Your task to perform on an android device: turn off data saver in the chrome app Image 0: 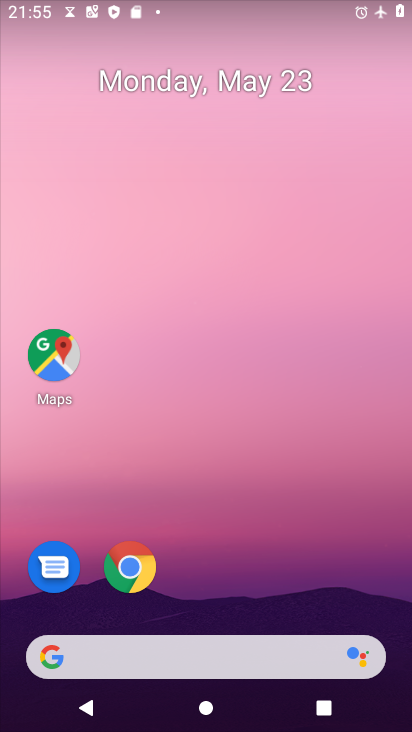
Step 0: drag from (270, 509) to (275, 247)
Your task to perform on an android device: turn off data saver in the chrome app Image 1: 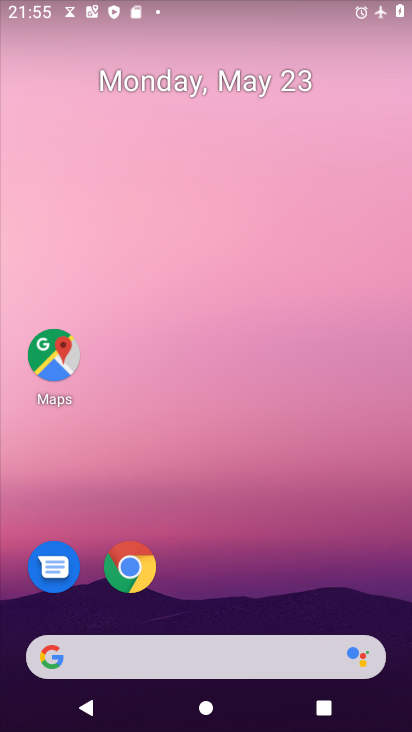
Step 1: drag from (267, 578) to (228, 156)
Your task to perform on an android device: turn off data saver in the chrome app Image 2: 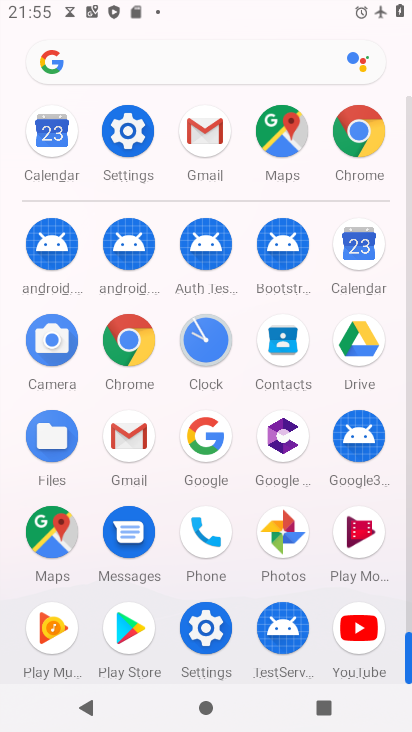
Step 2: click (117, 342)
Your task to perform on an android device: turn off data saver in the chrome app Image 3: 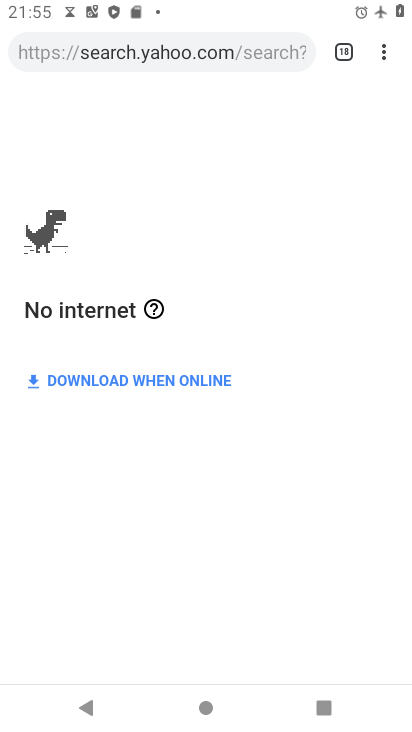
Step 3: click (378, 60)
Your task to perform on an android device: turn off data saver in the chrome app Image 4: 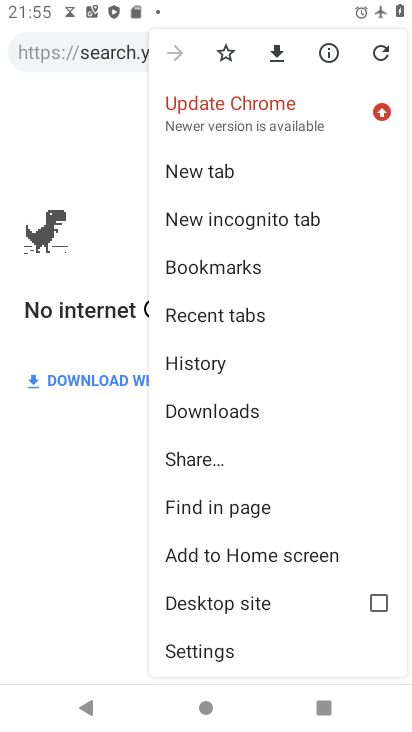
Step 4: click (218, 654)
Your task to perform on an android device: turn off data saver in the chrome app Image 5: 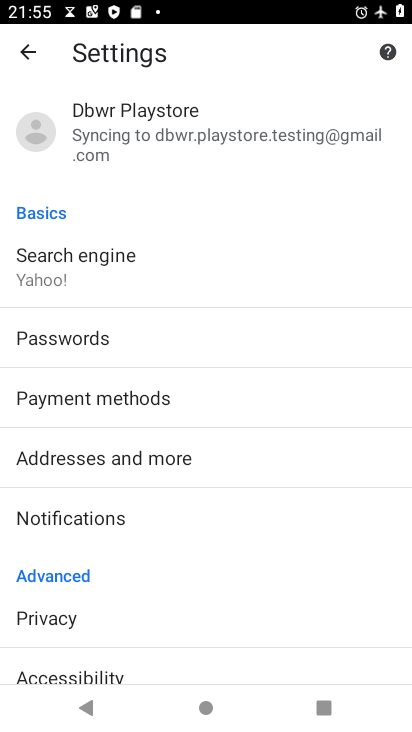
Step 5: drag from (245, 618) to (262, 234)
Your task to perform on an android device: turn off data saver in the chrome app Image 6: 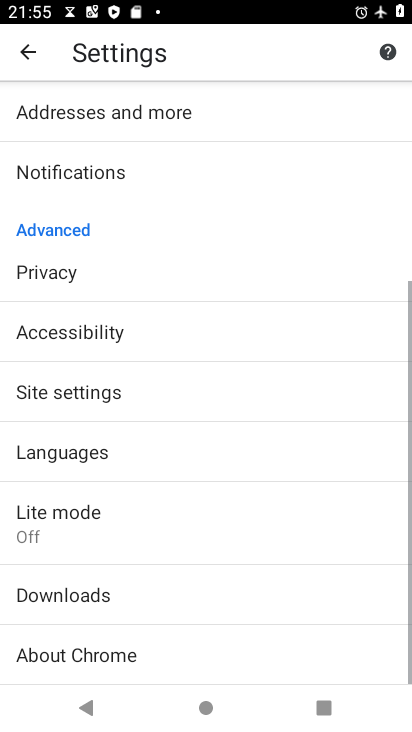
Step 6: click (104, 520)
Your task to perform on an android device: turn off data saver in the chrome app Image 7: 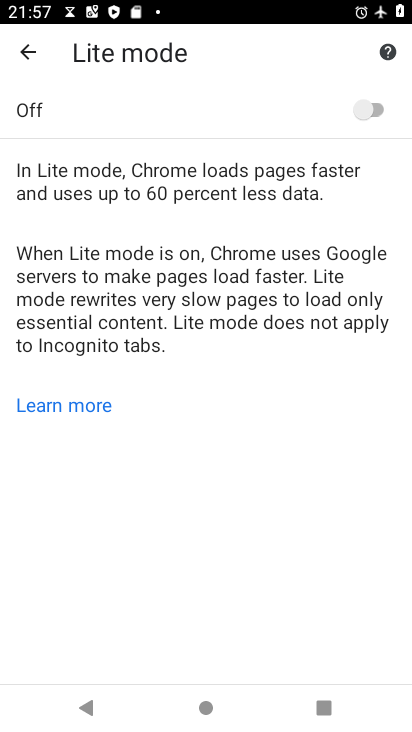
Step 7: task complete